Your task to perform on an android device: Open internet settings Image 0: 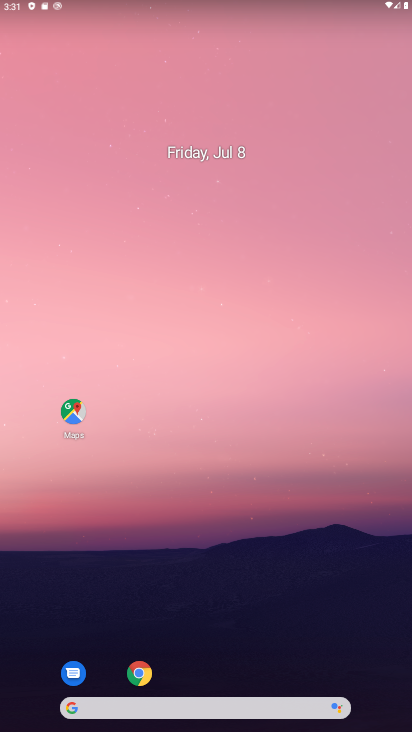
Step 0: drag from (239, 670) to (233, 96)
Your task to perform on an android device: Open internet settings Image 1: 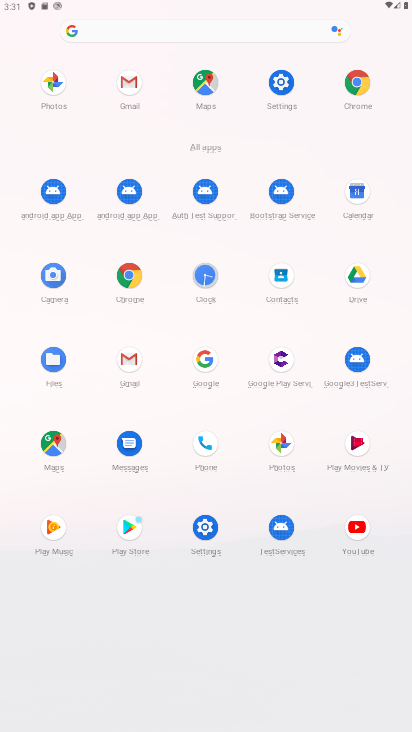
Step 1: click (278, 86)
Your task to perform on an android device: Open internet settings Image 2: 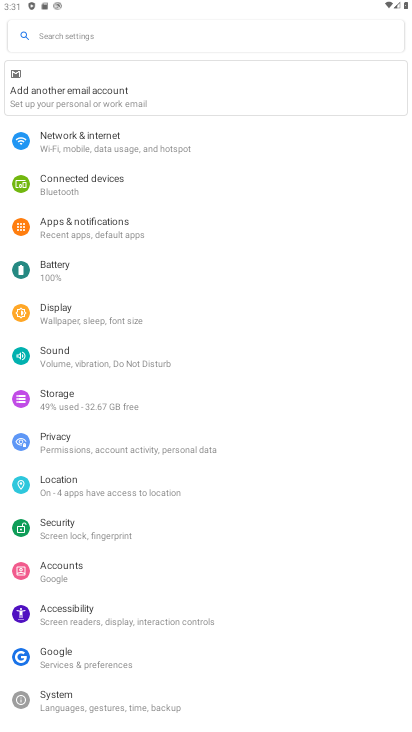
Step 2: click (77, 146)
Your task to perform on an android device: Open internet settings Image 3: 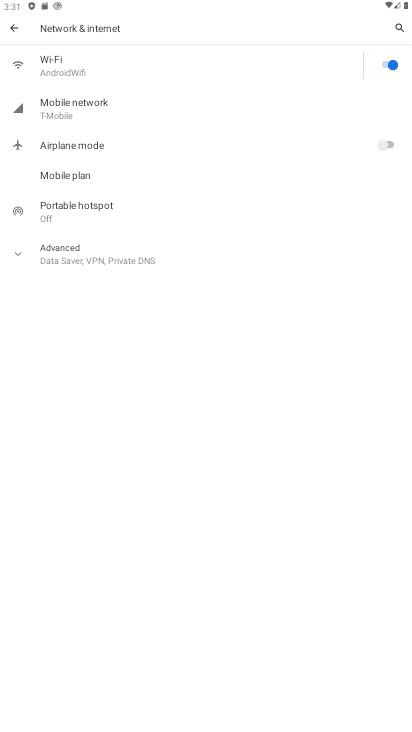
Step 3: task complete